Your task to perform on an android device: Go to Google maps Image 0: 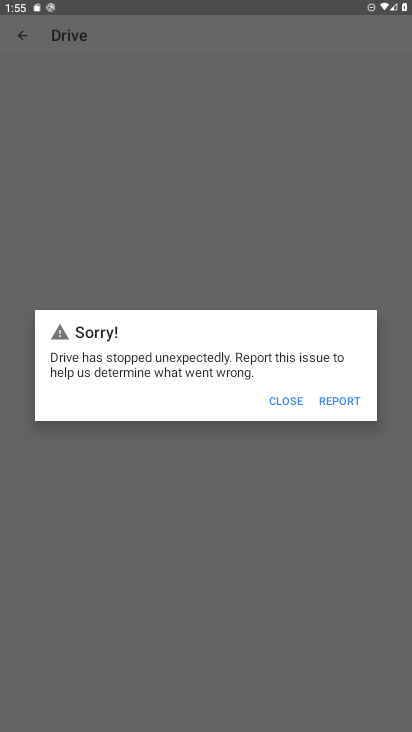
Step 0: press home button
Your task to perform on an android device: Go to Google maps Image 1: 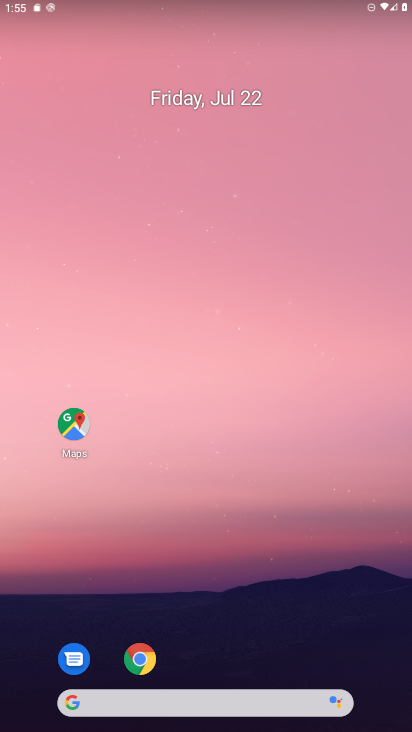
Step 1: click (74, 427)
Your task to perform on an android device: Go to Google maps Image 2: 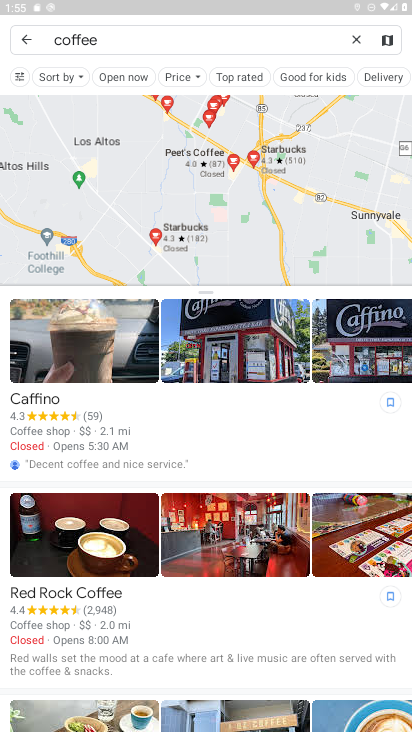
Step 2: task complete